Your task to perform on an android device: Open settings Image 0: 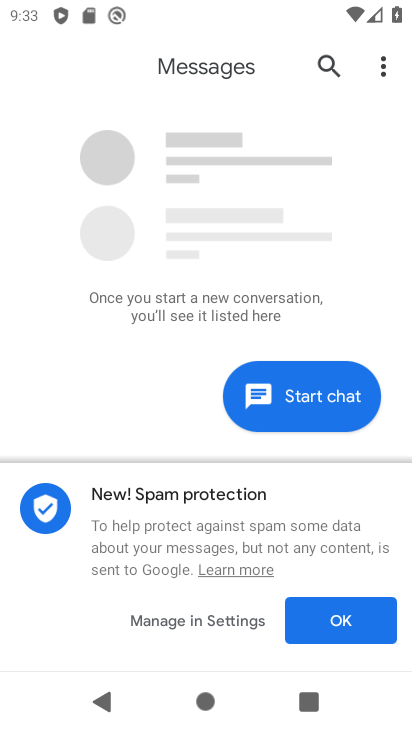
Step 0: press home button
Your task to perform on an android device: Open settings Image 1: 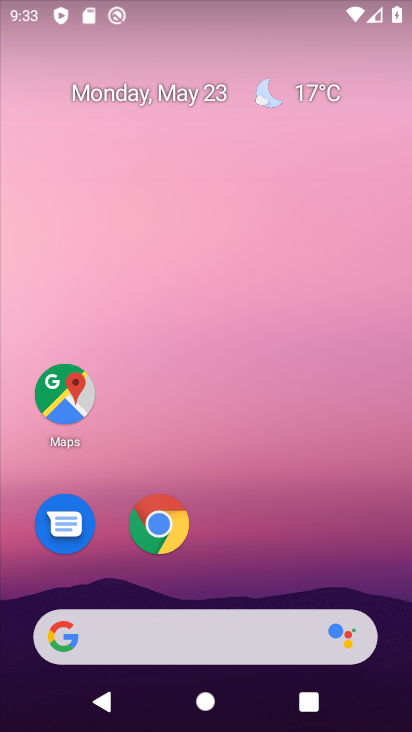
Step 1: drag from (238, 558) to (244, 98)
Your task to perform on an android device: Open settings Image 2: 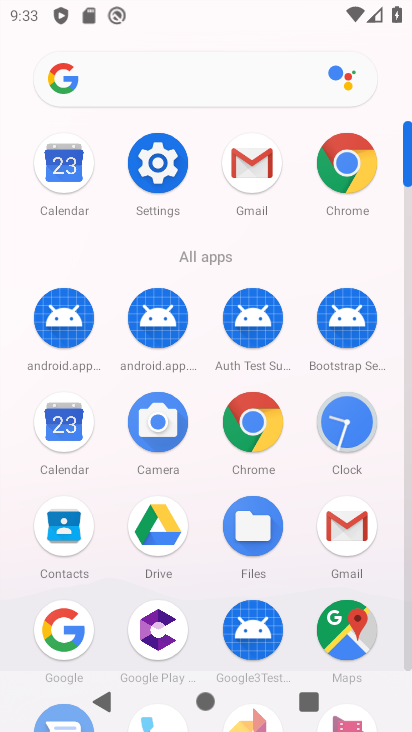
Step 2: click (170, 166)
Your task to perform on an android device: Open settings Image 3: 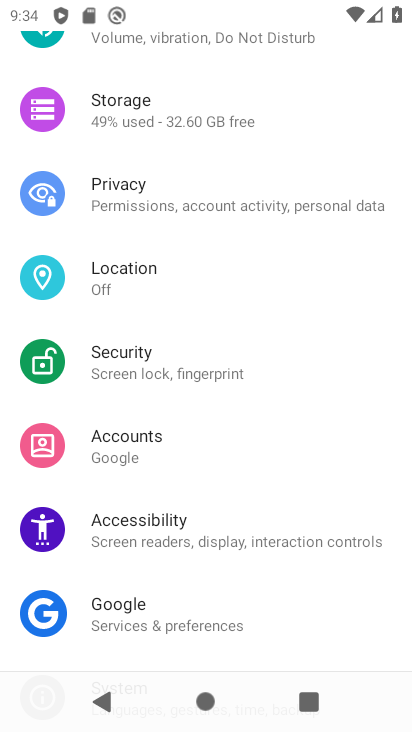
Step 3: task complete